Your task to perform on an android device: Go to Google maps Image 0: 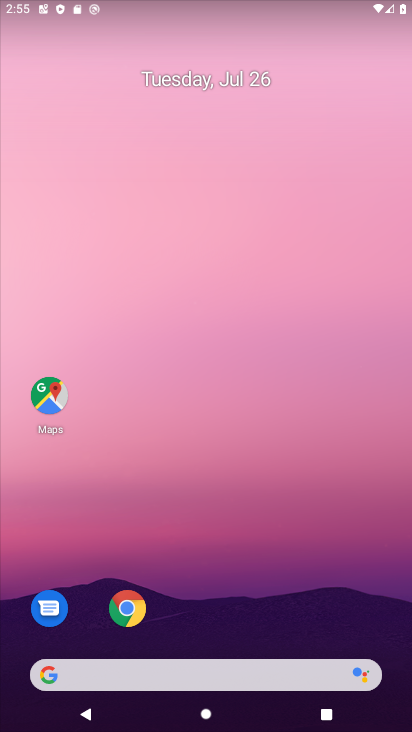
Step 0: drag from (213, 650) to (225, 174)
Your task to perform on an android device: Go to Google maps Image 1: 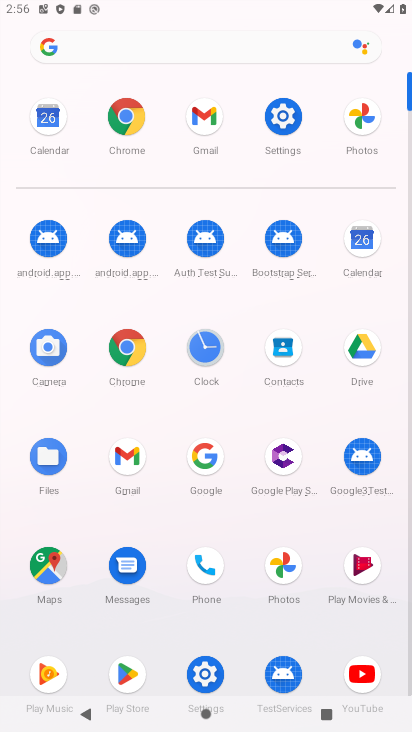
Step 1: task complete